Your task to perform on an android device: Open ESPN.com Image 0: 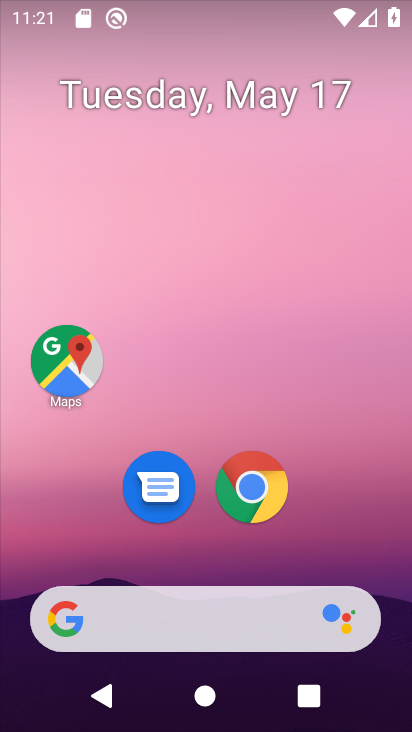
Step 0: drag from (391, 550) to (317, 99)
Your task to perform on an android device: Open ESPN.com Image 1: 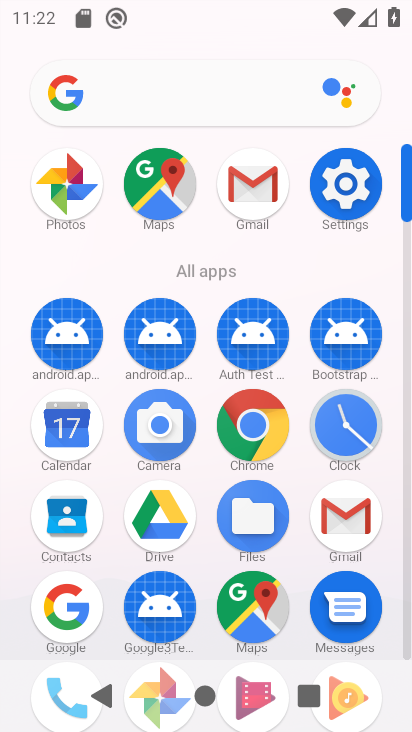
Step 1: click (260, 432)
Your task to perform on an android device: Open ESPN.com Image 2: 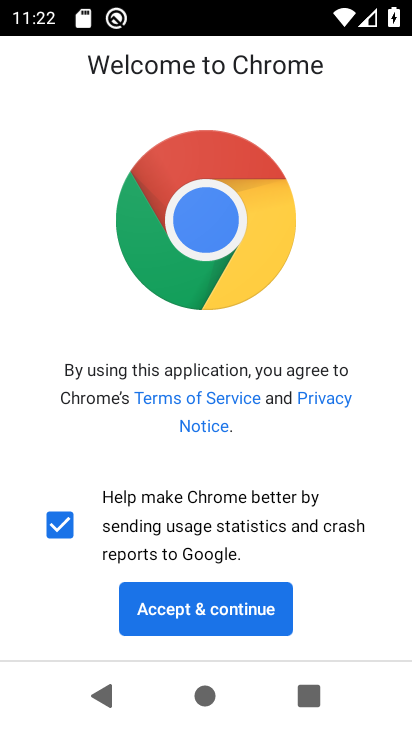
Step 2: click (225, 607)
Your task to perform on an android device: Open ESPN.com Image 3: 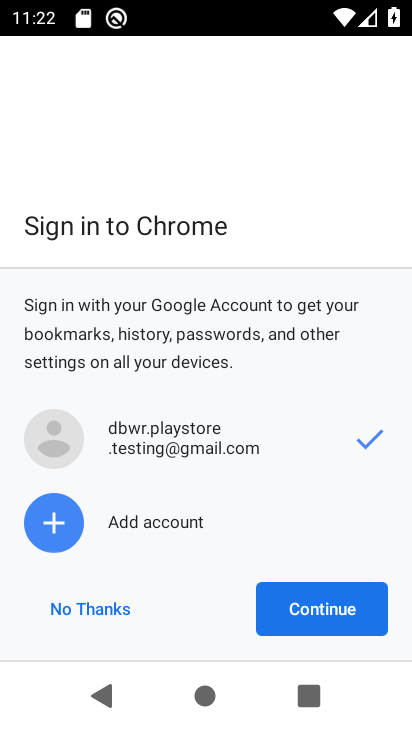
Step 3: click (225, 607)
Your task to perform on an android device: Open ESPN.com Image 4: 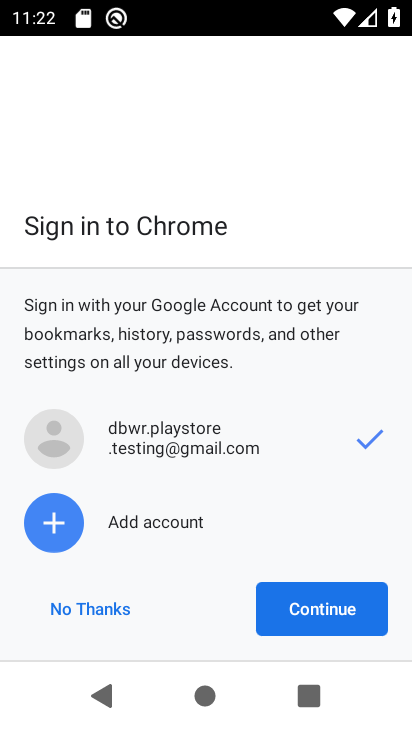
Step 4: click (292, 611)
Your task to perform on an android device: Open ESPN.com Image 5: 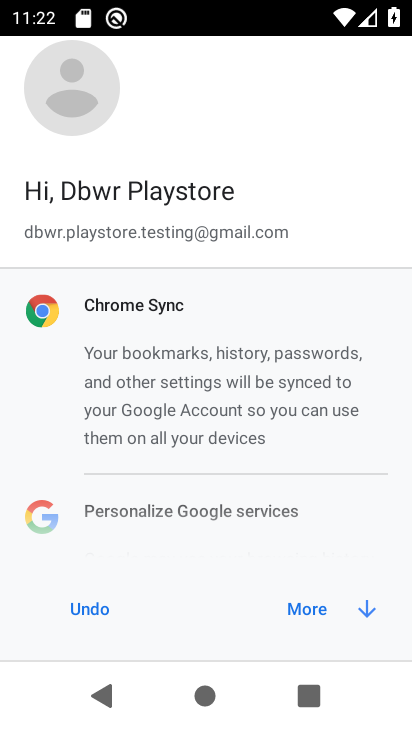
Step 5: click (292, 611)
Your task to perform on an android device: Open ESPN.com Image 6: 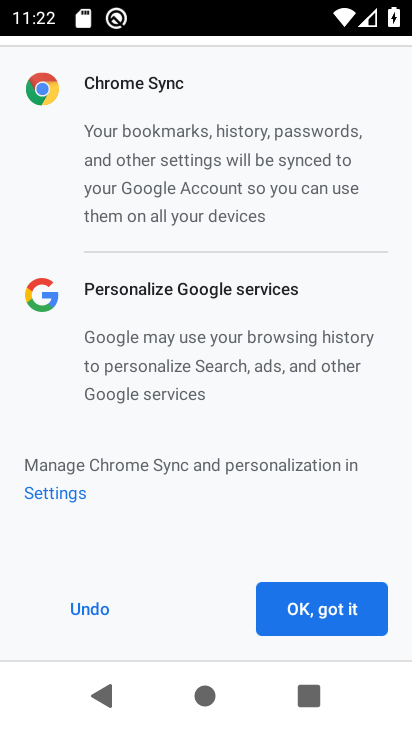
Step 6: click (292, 611)
Your task to perform on an android device: Open ESPN.com Image 7: 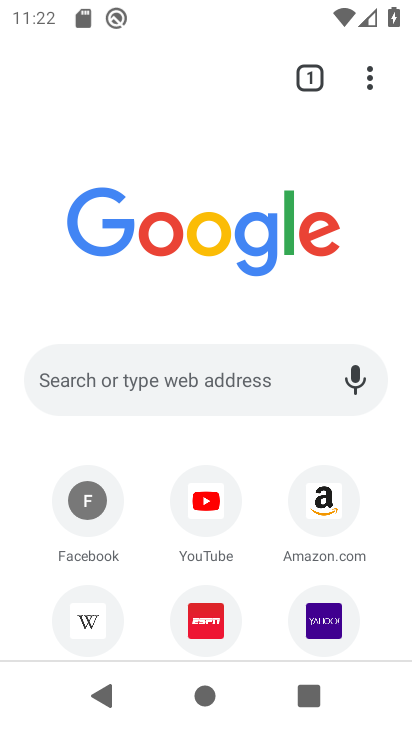
Step 7: click (212, 627)
Your task to perform on an android device: Open ESPN.com Image 8: 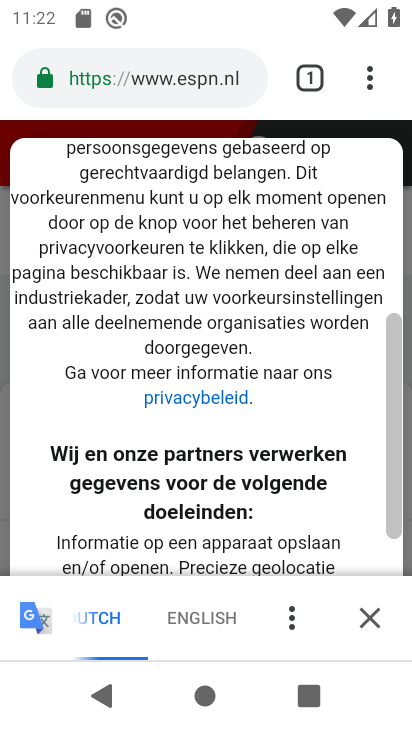
Step 8: task complete